Your task to perform on an android device: Go to calendar. Show me events next week Image 0: 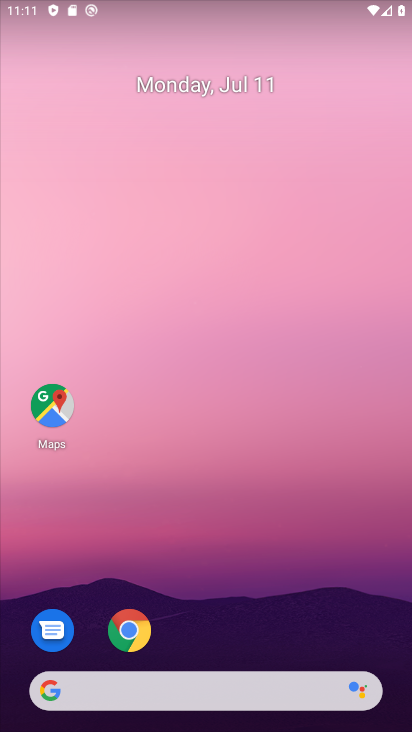
Step 0: drag from (295, 645) to (289, 0)
Your task to perform on an android device: Go to calendar. Show me events next week Image 1: 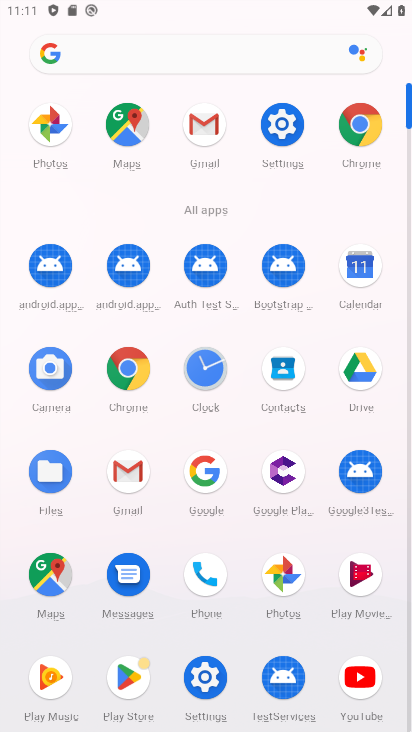
Step 1: click (356, 271)
Your task to perform on an android device: Go to calendar. Show me events next week Image 2: 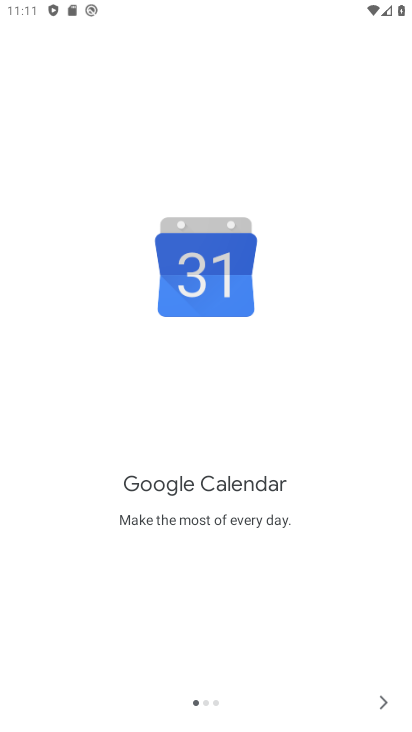
Step 2: click (384, 689)
Your task to perform on an android device: Go to calendar. Show me events next week Image 3: 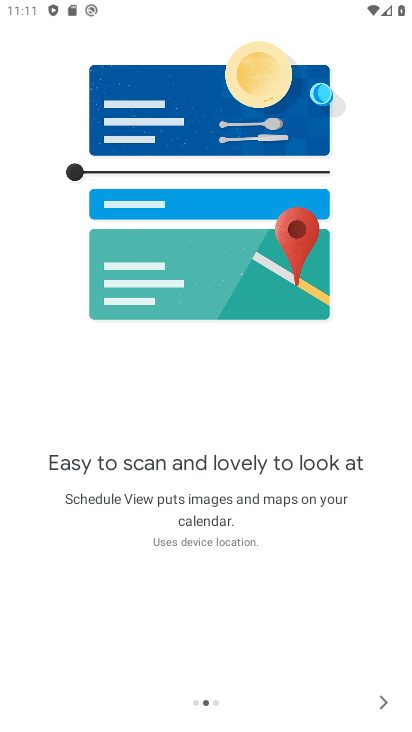
Step 3: click (384, 689)
Your task to perform on an android device: Go to calendar. Show me events next week Image 4: 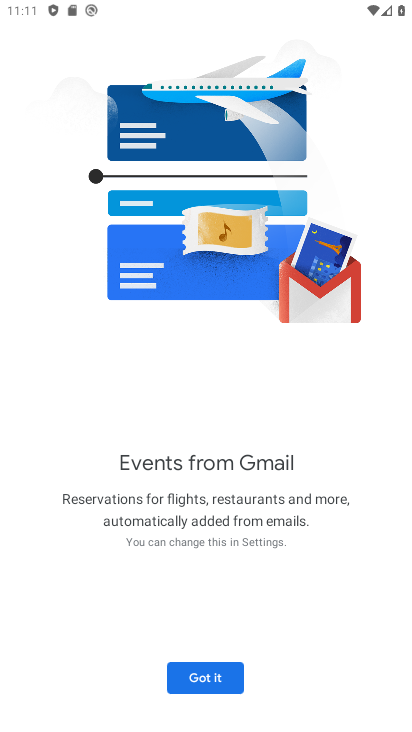
Step 4: click (223, 681)
Your task to perform on an android device: Go to calendar. Show me events next week Image 5: 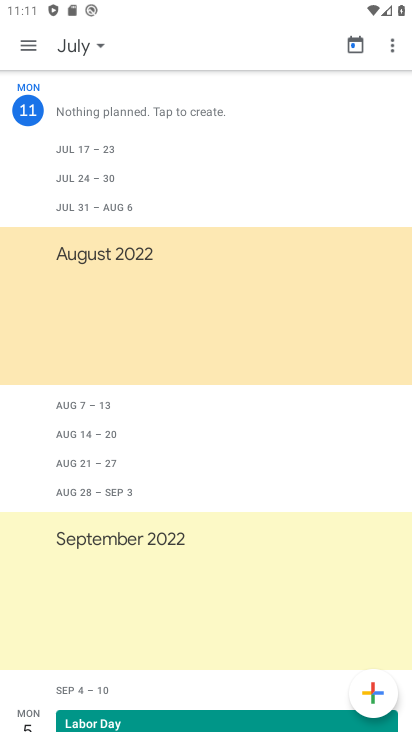
Step 5: click (22, 47)
Your task to perform on an android device: Go to calendar. Show me events next week Image 6: 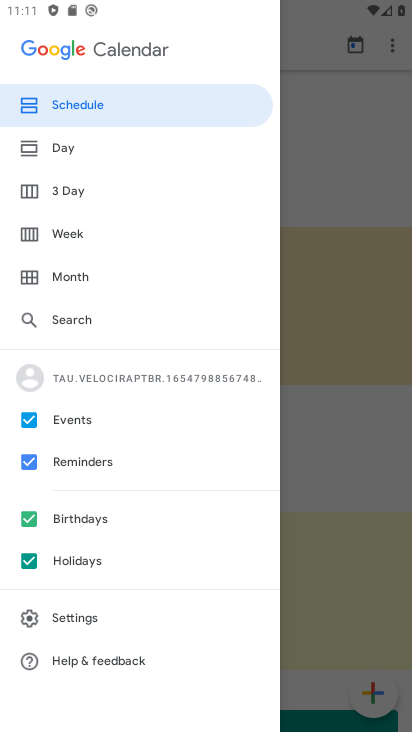
Step 6: click (58, 233)
Your task to perform on an android device: Go to calendar. Show me events next week Image 7: 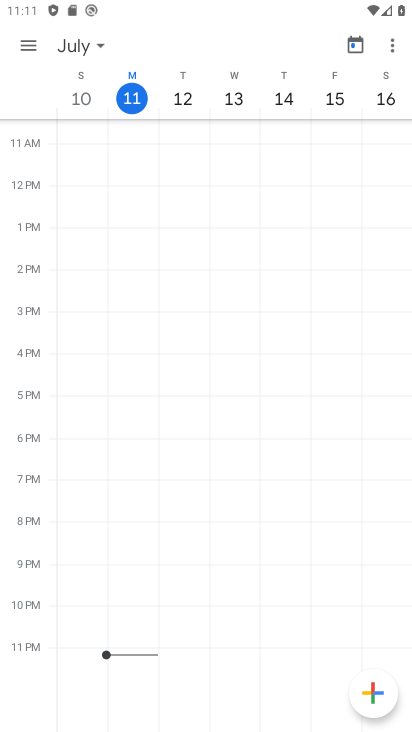
Step 7: click (85, 48)
Your task to perform on an android device: Go to calendar. Show me events next week Image 8: 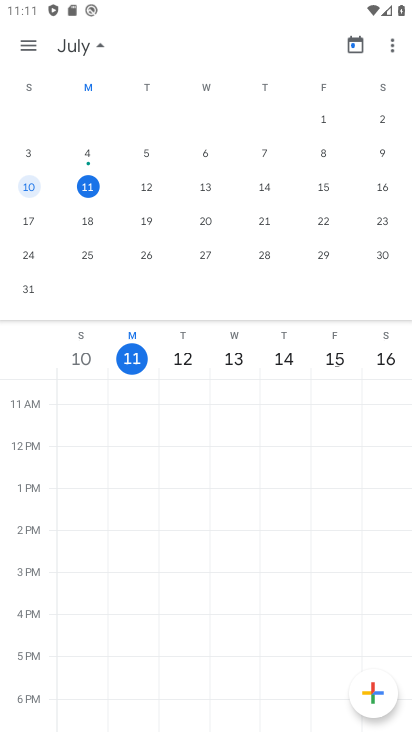
Step 8: click (89, 218)
Your task to perform on an android device: Go to calendar. Show me events next week Image 9: 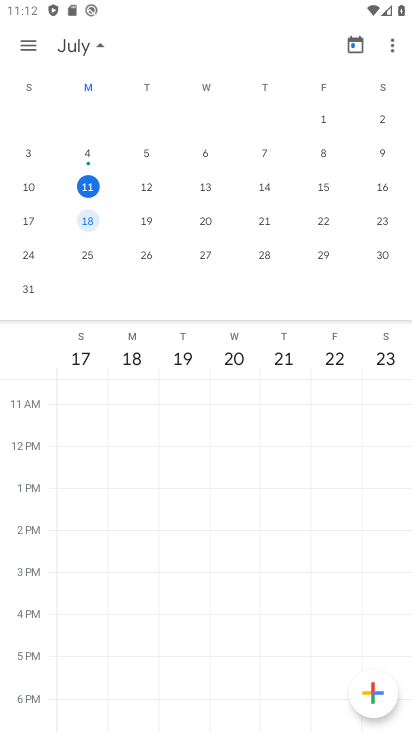
Step 9: task complete